Your task to perform on an android device: Search for Mexican restaurants on Maps Image 0: 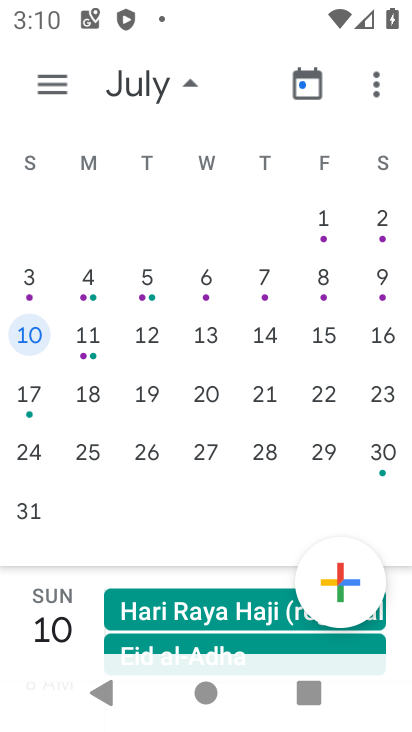
Step 0: press home button
Your task to perform on an android device: Search for Mexican restaurants on Maps Image 1: 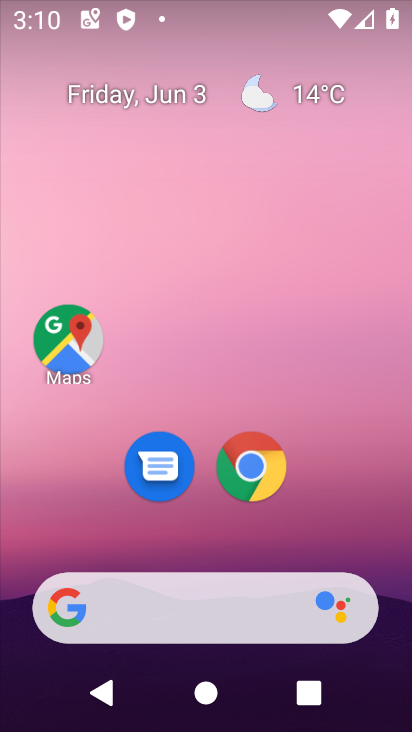
Step 1: click (61, 325)
Your task to perform on an android device: Search for Mexican restaurants on Maps Image 2: 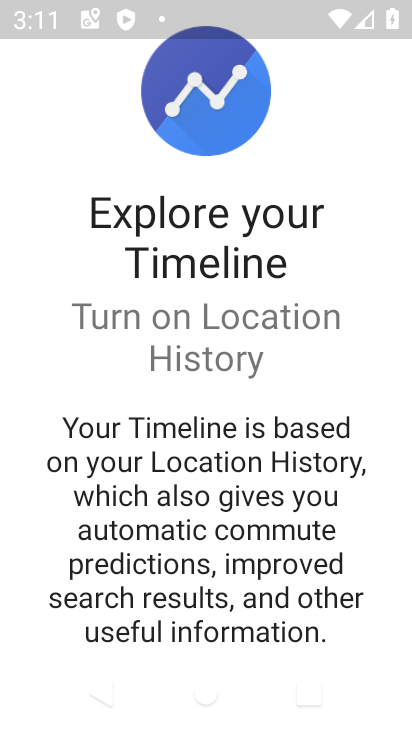
Step 2: drag from (262, 581) to (261, 125)
Your task to perform on an android device: Search for Mexican restaurants on Maps Image 3: 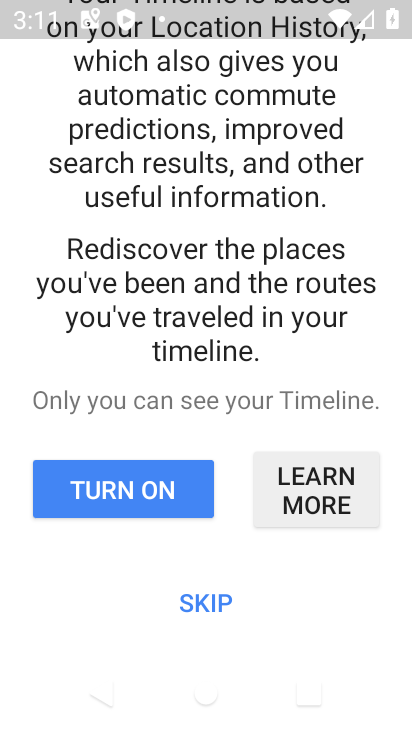
Step 3: click (229, 601)
Your task to perform on an android device: Search for Mexican restaurants on Maps Image 4: 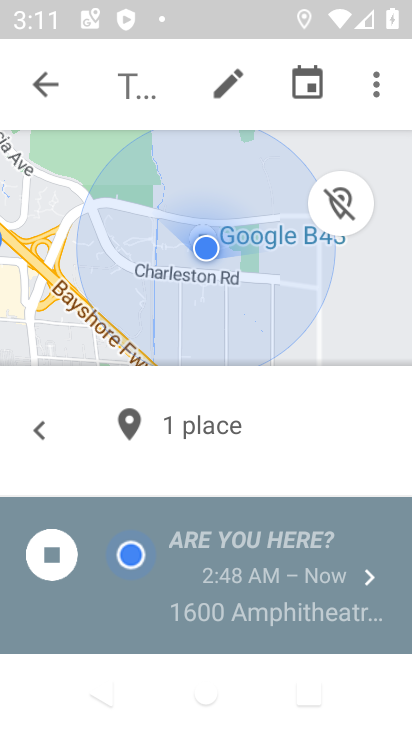
Step 4: click (45, 82)
Your task to perform on an android device: Search for Mexican restaurants on Maps Image 5: 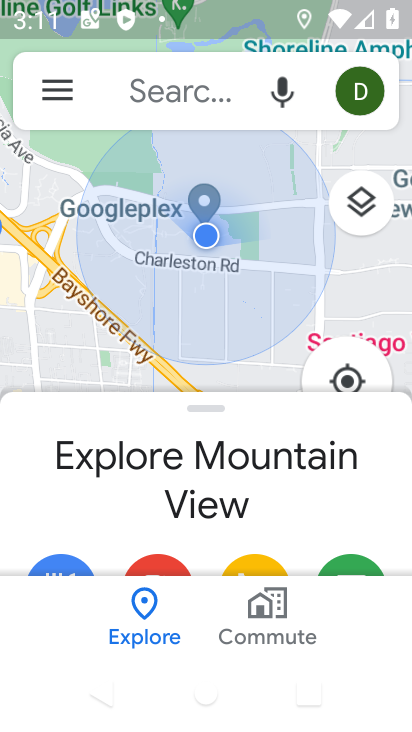
Step 5: click (154, 78)
Your task to perform on an android device: Search for Mexican restaurants on Maps Image 6: 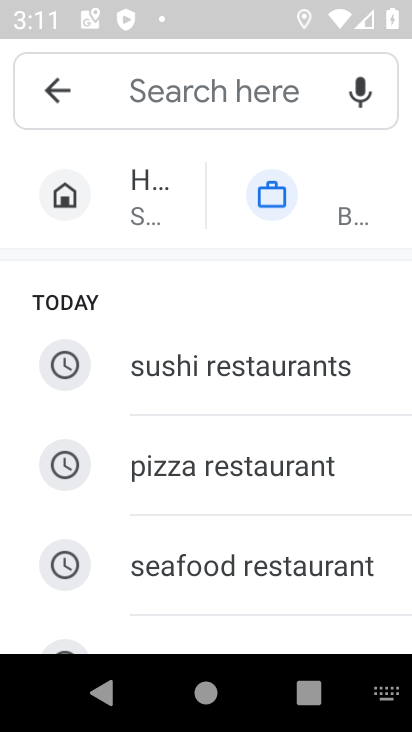
Step 6: drag from (318, 553) to (341, 228)
Your task to perform on an android device: Search for Mexican restaurants on Maps Image 7: 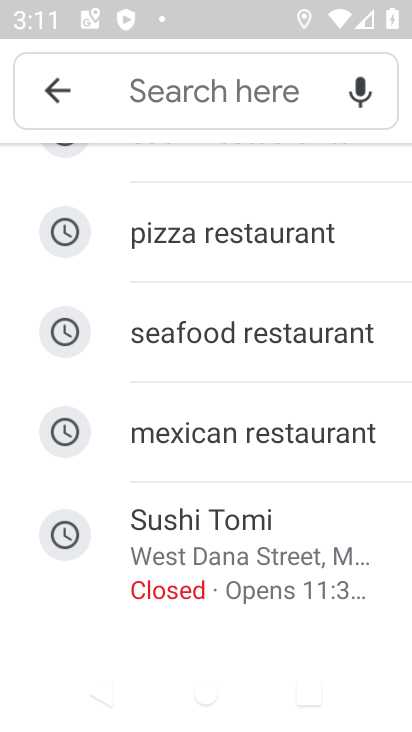
Step 7: click (287, 449)
Your task to perform on an android device: Search for Mexican restaurants on Maps Image 8: 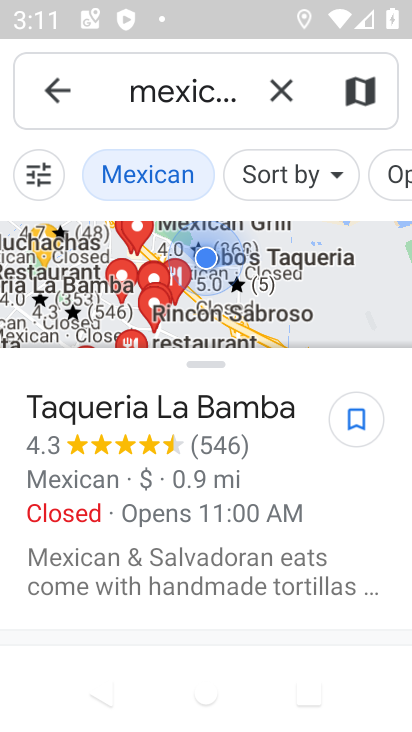
Step 8: task complete